Your task to perform on an android device: turn on location history Image 0: 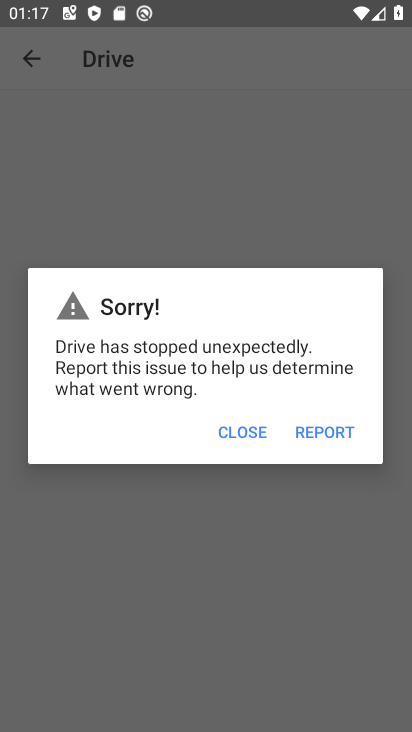
Step 0: press back button
Your task to perform on an android device: turn on location history Image 1: 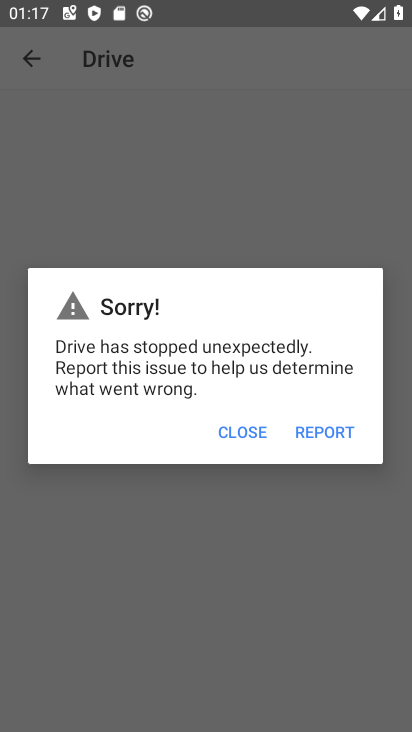
Step 1: press back button
Your task to perform on an android device: turn on location history Image 2: 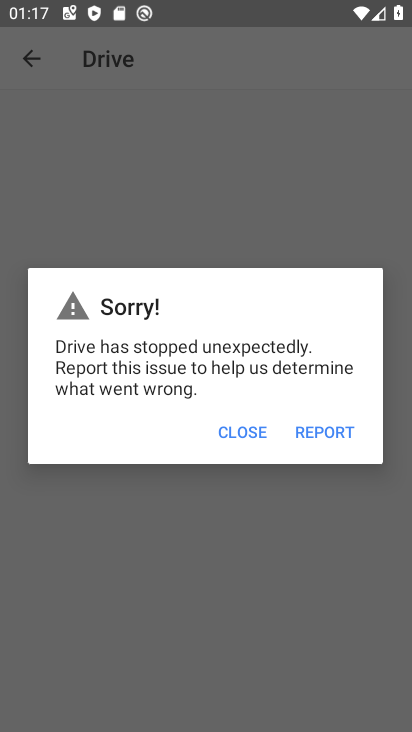
Step 2: press back button
Your task to perform on an android device: turn on location history Image 3: 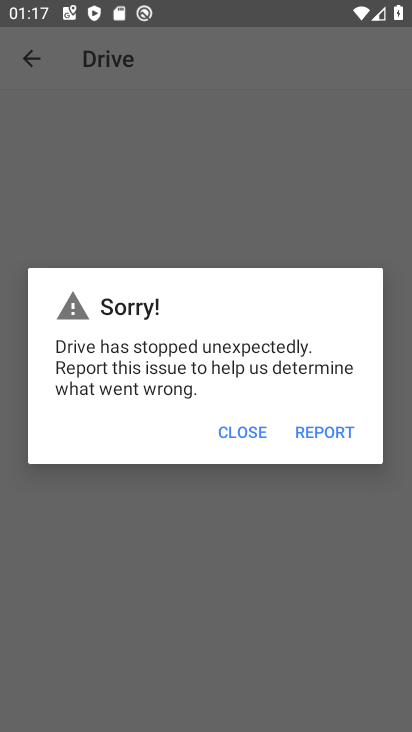
Step 3: click (251, 428)
Your task to perform on an android device: turn on location history Image 4: 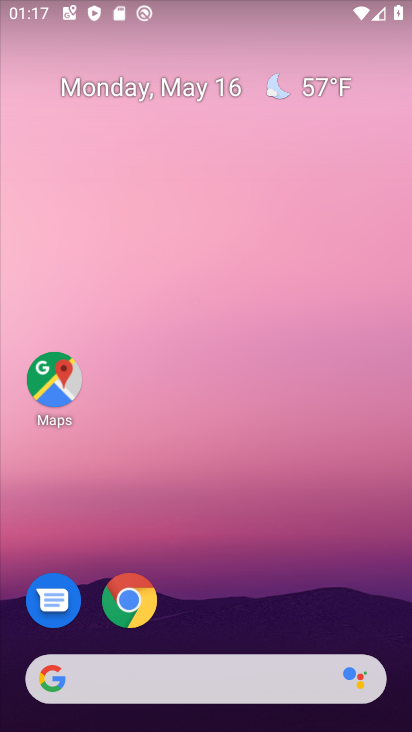
Step 4: drag from (236, 593) to (332, 91)
Your task to perform on an android device: turn on location history Image 5: 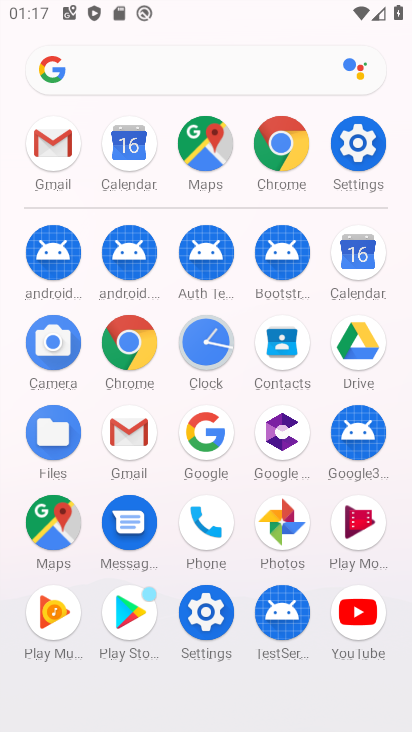
Step 5: click (358, 140)
Your task to perform on an android device: turn on location history Image 6: 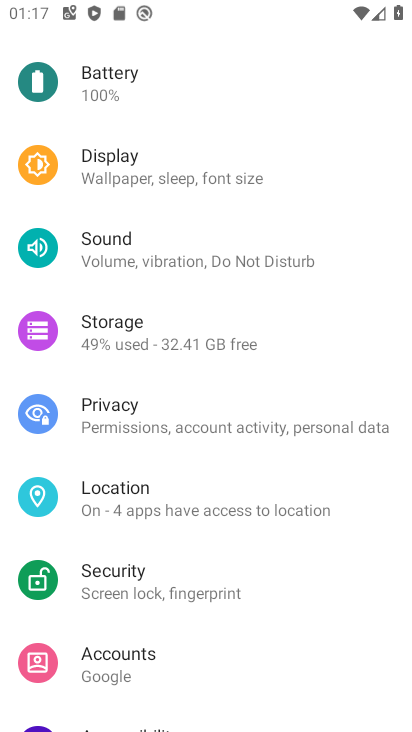
Step 6: click (132, 507)
Your task to perform on an android device: turn on location history Image 7: 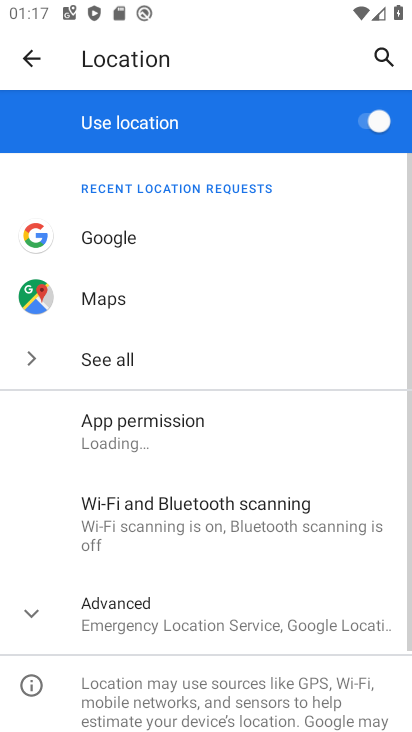
Step 7: click (184, 617)
Your task to perform on an android device: turn on location history Image 8: 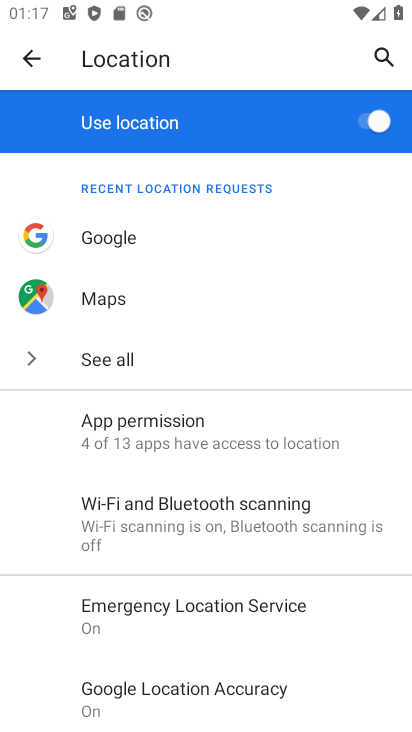
Step 8: drag from (198, 663) to (245, 399)
Your task to perform on an android device: turn on location history Image 9: 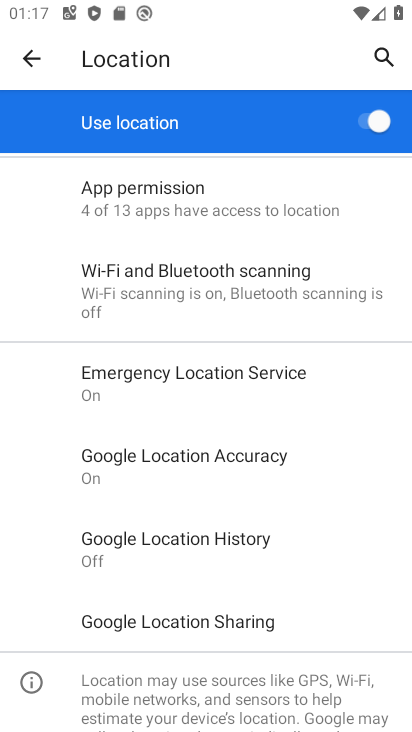
Step 9: click (217, 546)
Your task to perform on an android device: turn on location history Image 10: 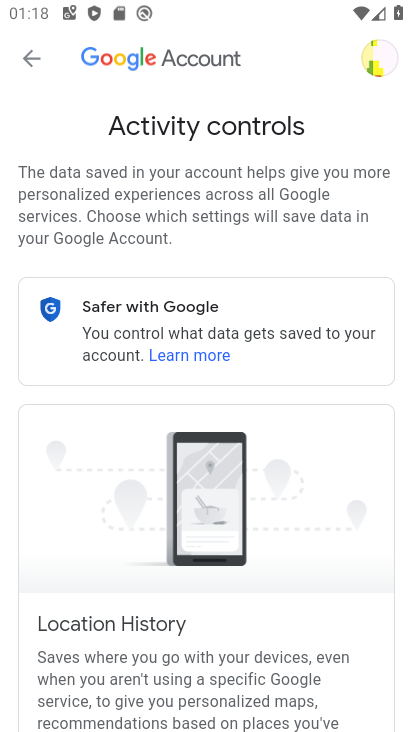
Step 10: drag from (201, 582) to (244, 104)
Your task to perform on an android device: turn on location history Image 11: 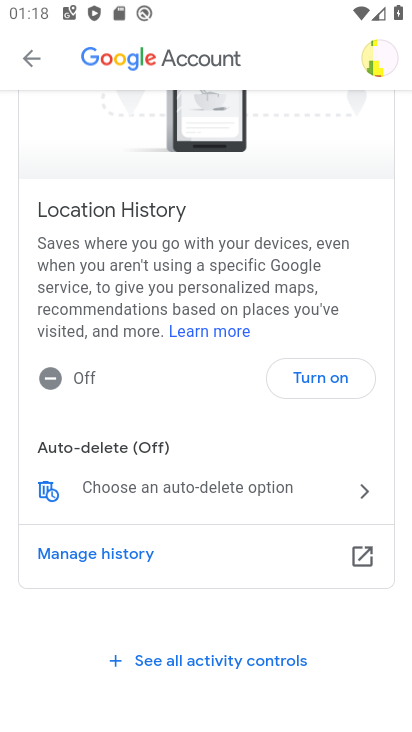
Step 11: click (322, 374)
Your task to perform on an android device: turn on location history Image 12: 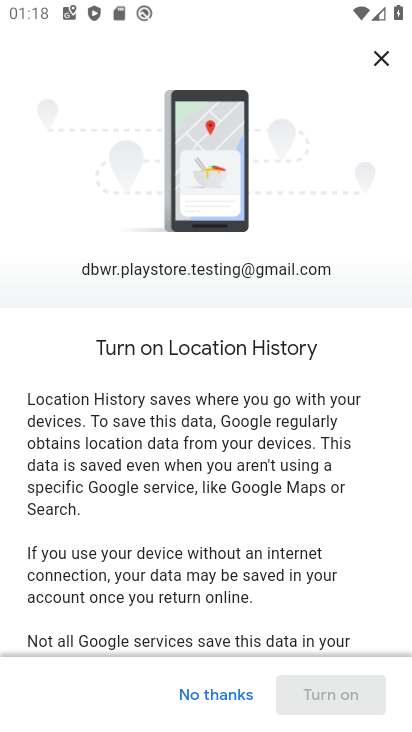
Step 12: drag from (291, 602) to (341, 2)
Your task to perform on an android device: turn on location history Image 13: 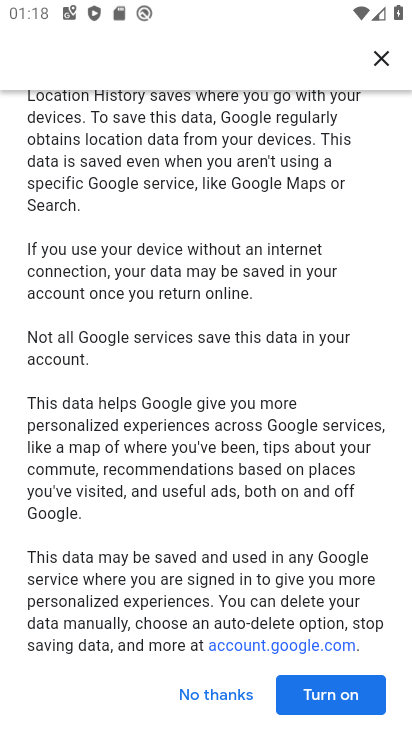
Step 13: click (335, 690)
Your task to perform on an android device: turn on location history Image 14: 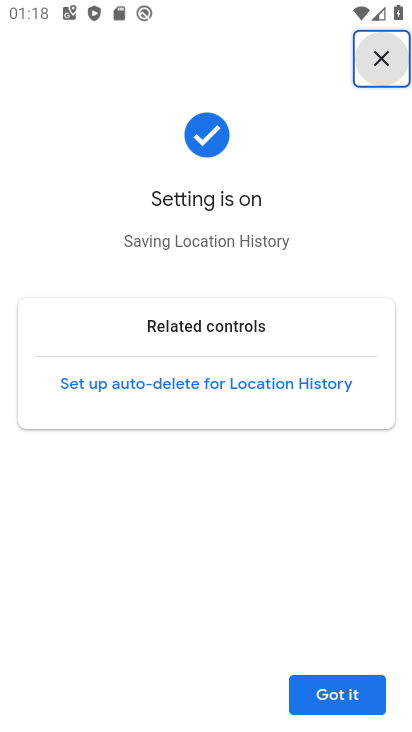
Step 14: task complete